Your task to perform on an android device: turn on location history Image 0: 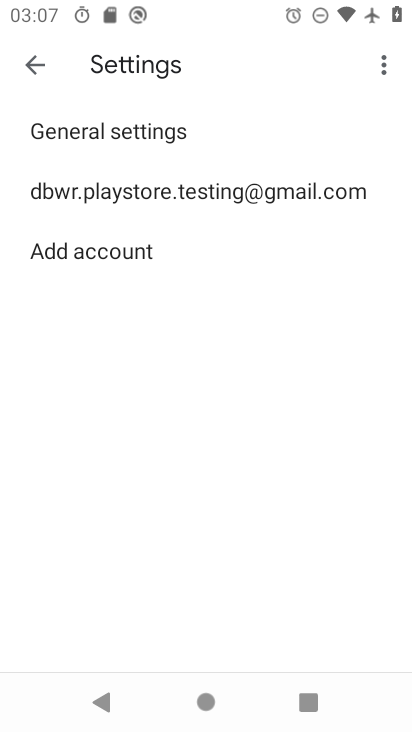
Step 0: press home button
Your task to perform on an android device: turn on location history Image 1: 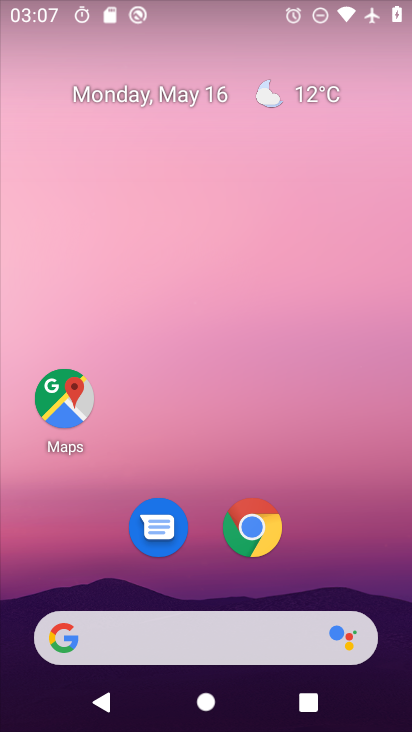
Step 1: drag from (144, 633) to (304, 62)
Your task to perform on an android device: turn on location history Image 2: 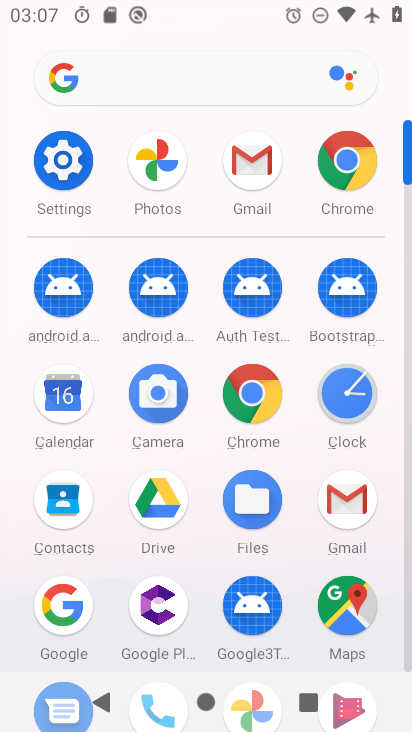
Step 2: click (60, 161)
Your task to perform on an android device: turn on location history Image 3: 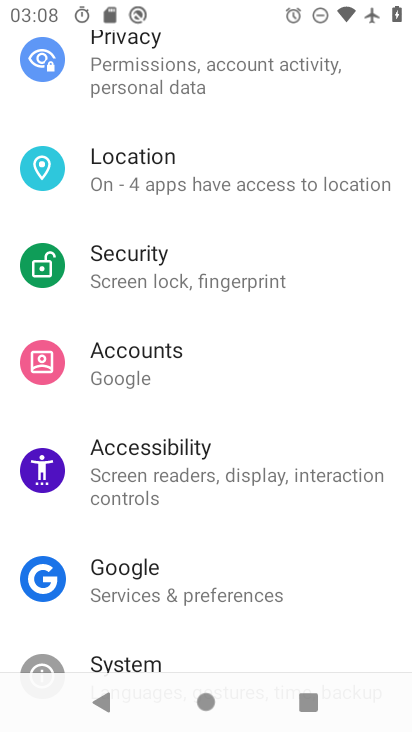
Step 3: click (152, 167)
Your task to perform on an android device: turn on location history Image 4: 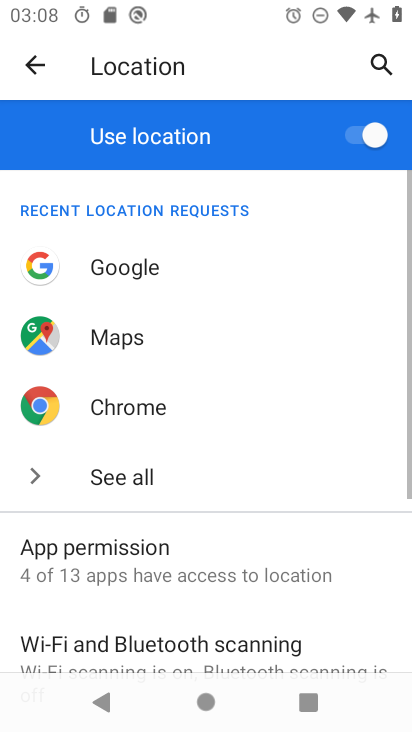
Step 4: drag from (166, 574) to (342, 119)
Your task to perform on an android device: turn on location history Image 5: 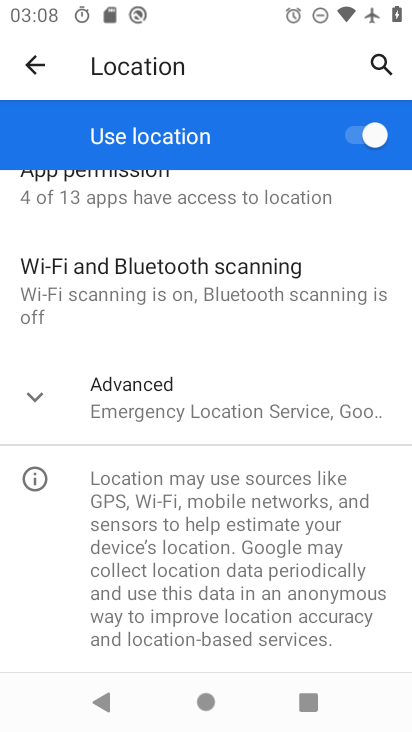
Step 5: click (158, 396)
Your task to perform on an android device: turn on location history Image 6: 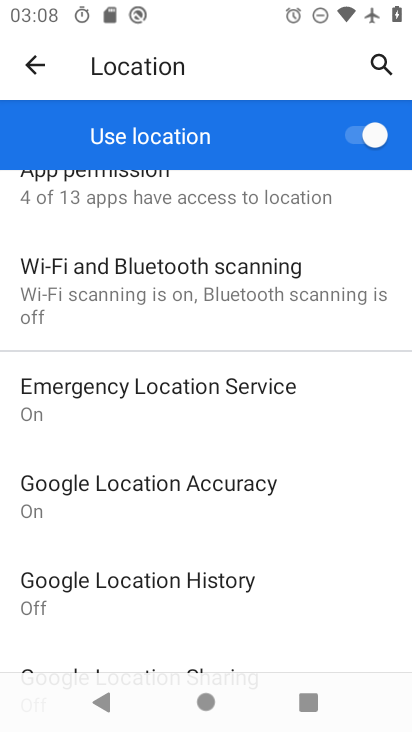
Step 6: drag from (161, 558) to (241, 324)
Your task to perform on an android device: turn on location history Image 7: 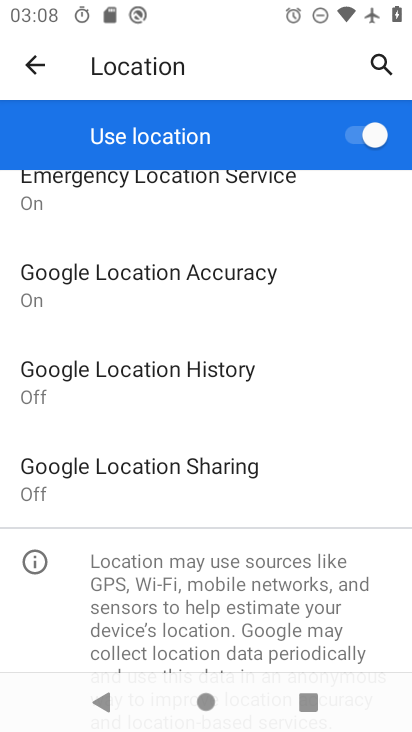
Step 7: click (172, 384)
Your task to perform on an android device: turn on location history Image 8: 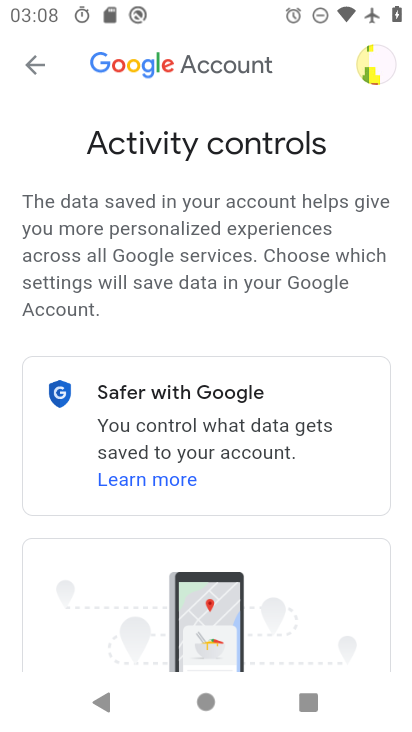
Step 8: task complete